Your task to perform on an android device: Search for sushi restaurants on Maps Image 0: 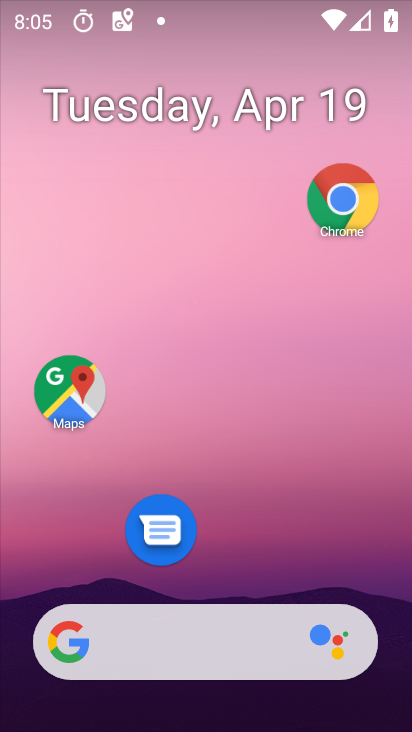
Step 0: drag from (240, 394) to (302, 135)
Your task to perform on an android device: Search for sushi restaurants on Maps Image 1: 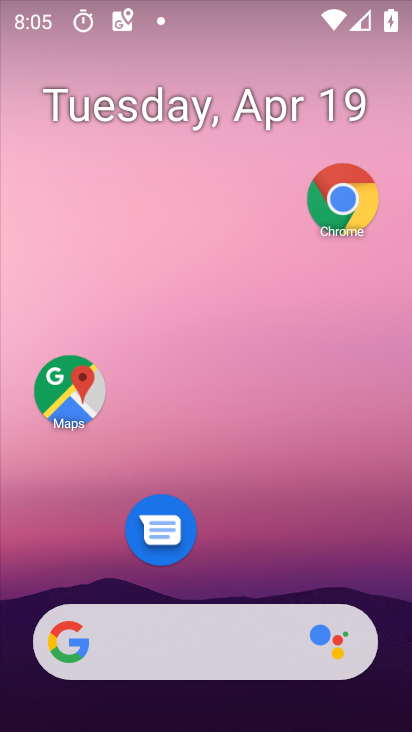
Step 1: drag from (217, 581) to (303, 166)
Your task to perform on an android device: Search for sushi restaurants on Maps Image 2: 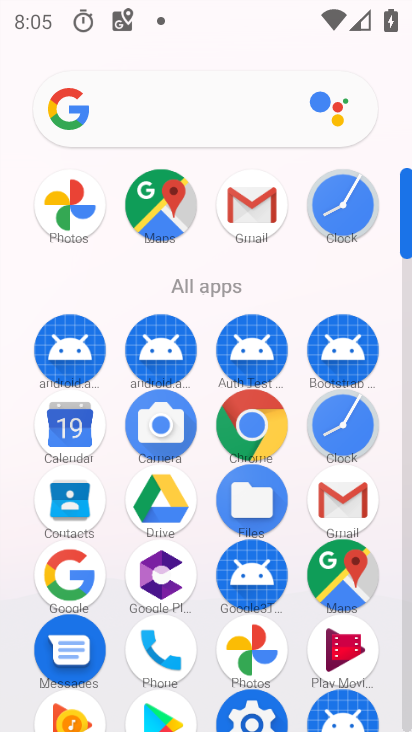
Step 2: click (348, 579)
Your task to perform on an android device: Search for sushi restaurants on Maps Image 3: 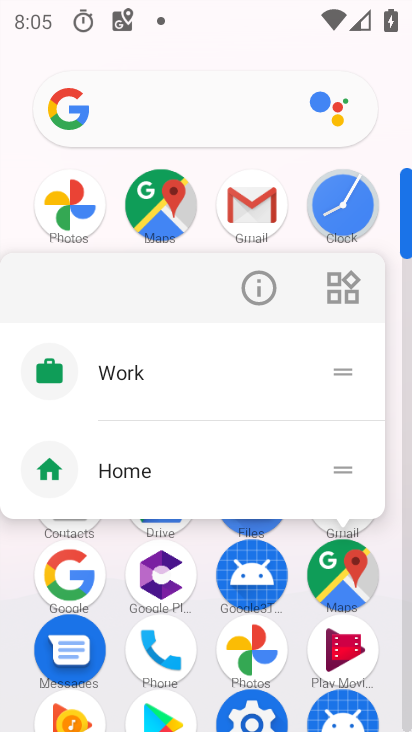
Step 3: click (264, 285)
Your task to perform on an android device: Search for sushi restaurants on Maps Image 4: 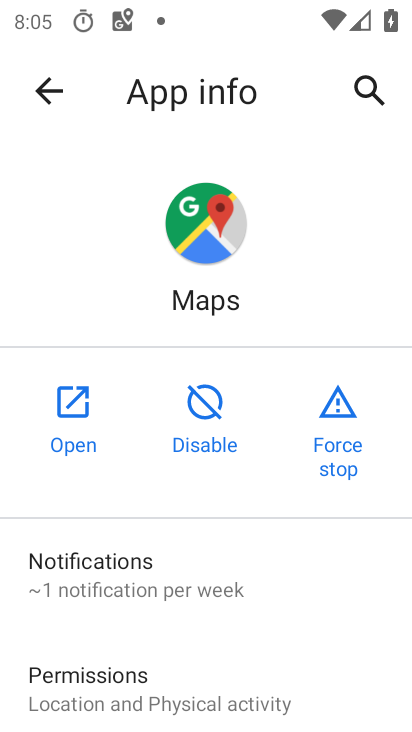
Step 4: click (76, 422)
Your task to perform on an android device: Search for sushi restaurants on Maps Image 5: 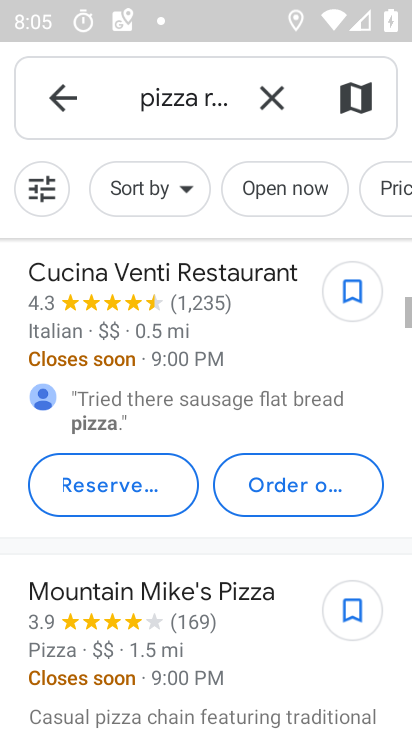
Step 5: click (271, 82)
Your task to perform on an android device: Search for sushi restaurants on Maps Image 6: 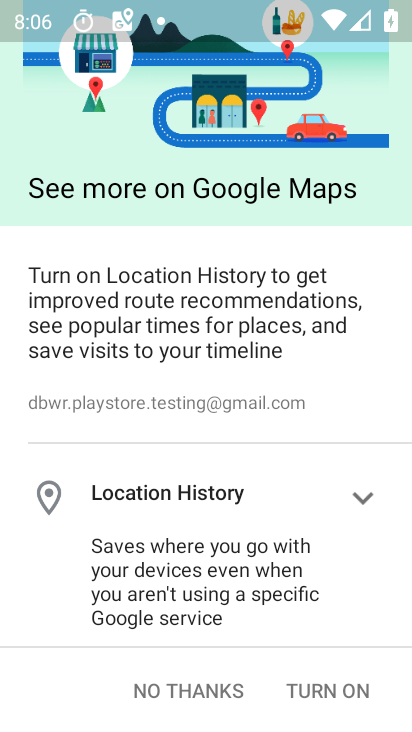
Step 6: click (305, 693)
Your task to perform on an android device: Search for sushi restaurants on Maps Image 7: 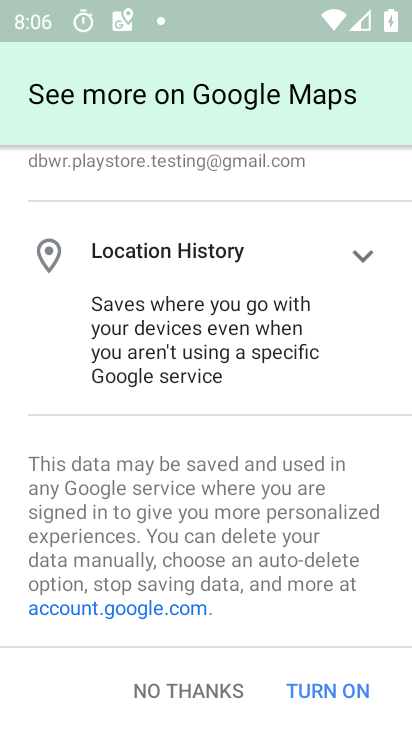
Step 7: click (321, 698)
Your task to perform on an android device: Search for sushi restaurants on Maps Image 8: 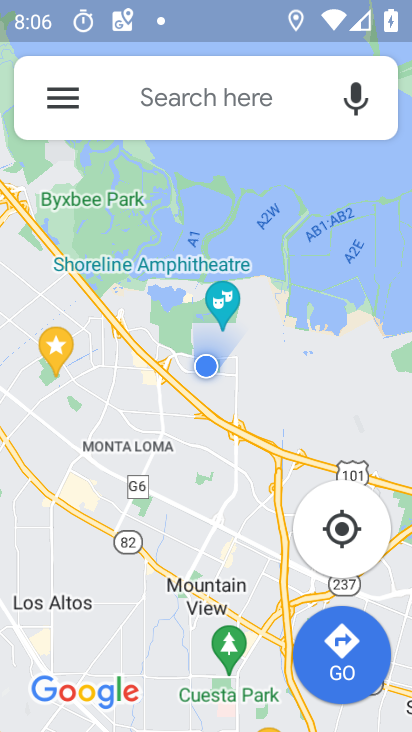
Step 8: click (178, 86)
Your task to perform on an android device: Search for sushi restaurants on Maps Image 9: 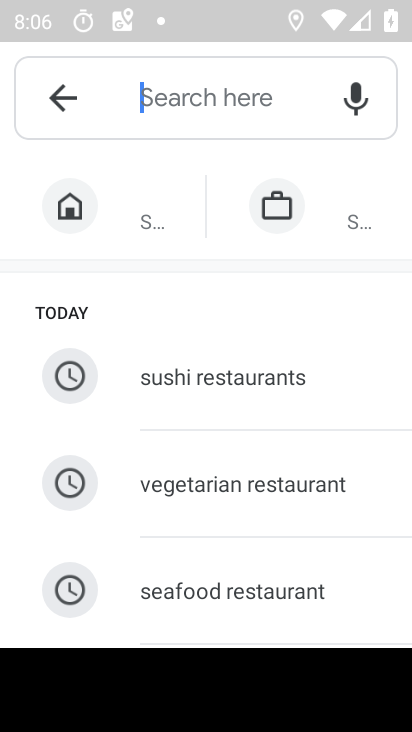
Step 9: click (214, 373)
Your task to perform on an android device: Search for sushi restaurants on Maps Image 10: 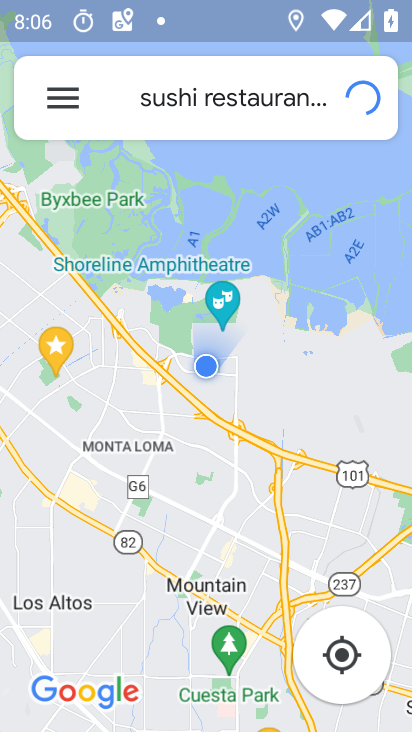
Step 10: task complete